Your task to perform on an android device: Go to Yahoo.com Image 0: 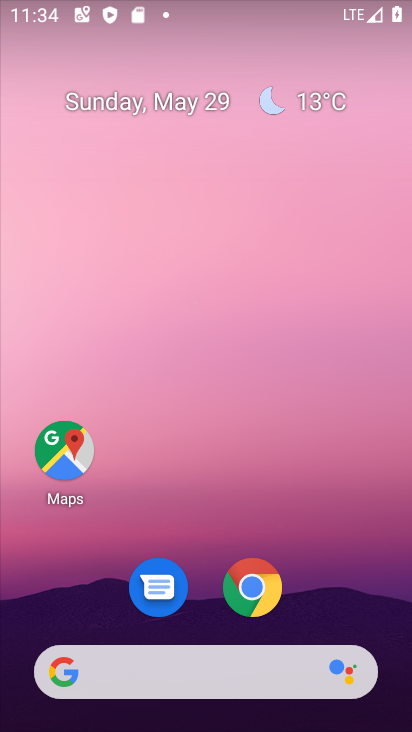
Step 0: click (256, 596)
Your task to perform on an android device: Go to Yahoo.com Image 1: 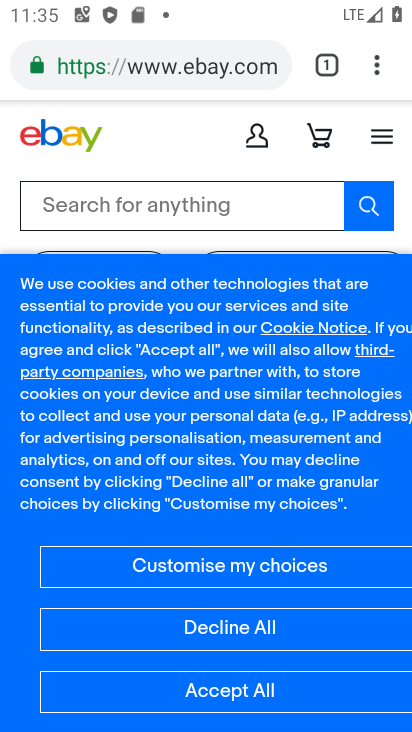
Step 1: click (182, 53)
Your task to perform on an android device: Go to Yahoo.com Image 2: 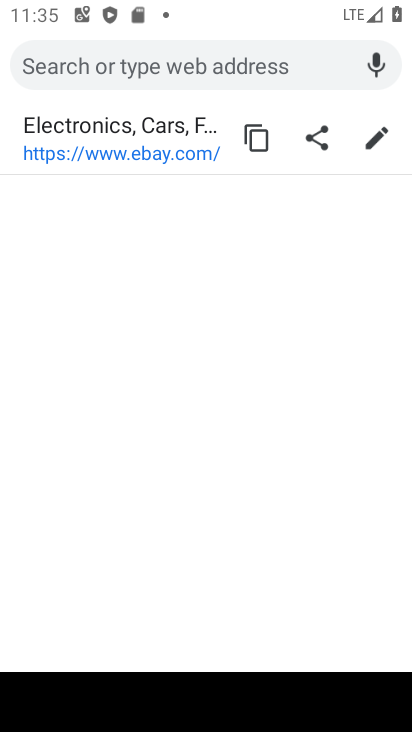
Step 2: type "yahoo.com"
Your task to perform on an android device: Go to Yahoo.com Image 3: 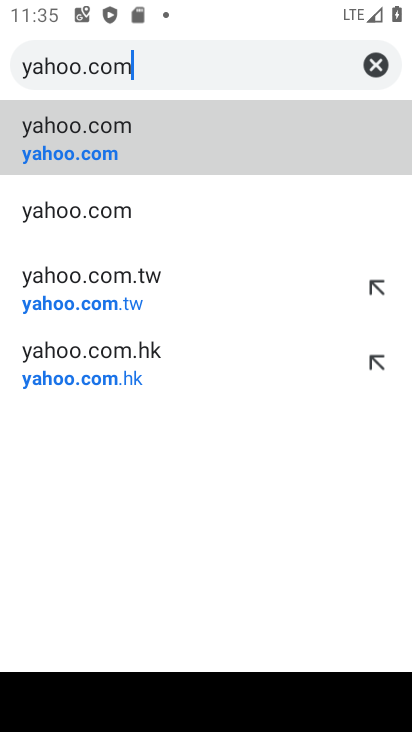
Step 3: click (89, 157)
Your task to perform on an android device: Go to Yahoo.com Image 4: 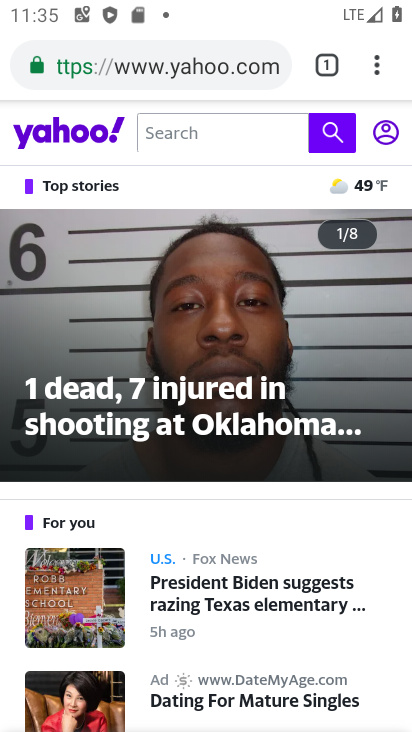
Step 4: task complete